Your task to perform on an android device: See recent photos Image 0: 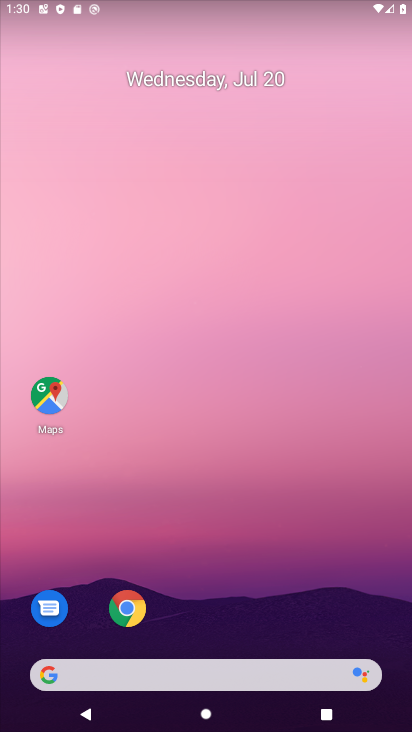
Step 0: task complete